Your task to perform on an android device: Is it going to rain today? Image 0: 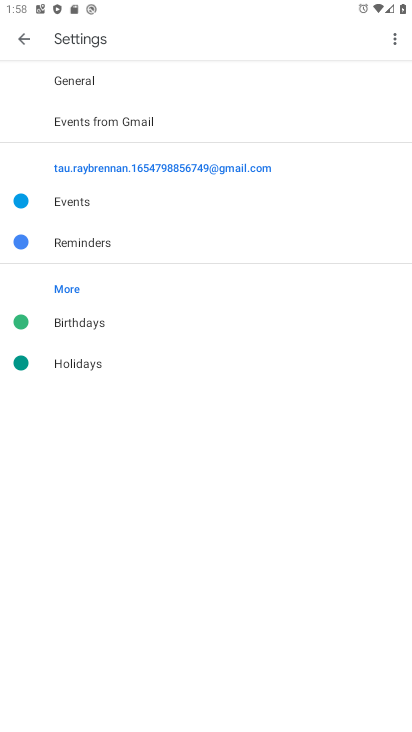
Step 0: press home button
Your task to perform on an android device: Is it going to rain today? Image 1: 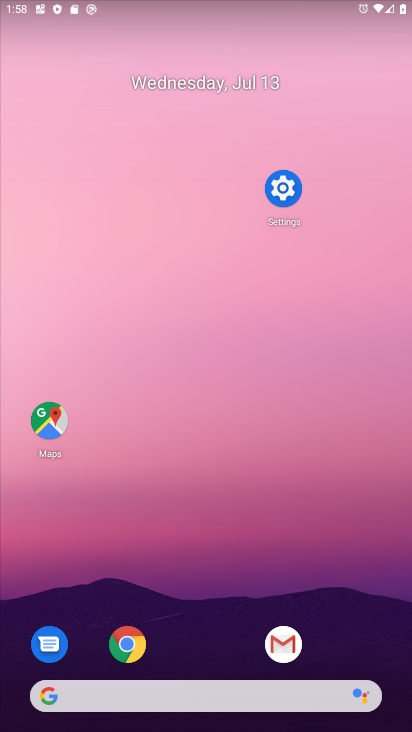
Step 1: click (182, 695)
Your task to perform on an android device: Is it going to rain today? Image 2: 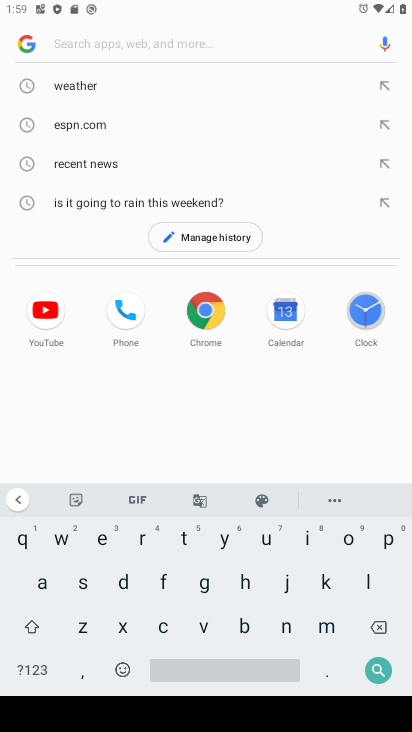
Step 2: click (141, 529)
Your task to perform on an android device: Is it going to rain today? Image 3: 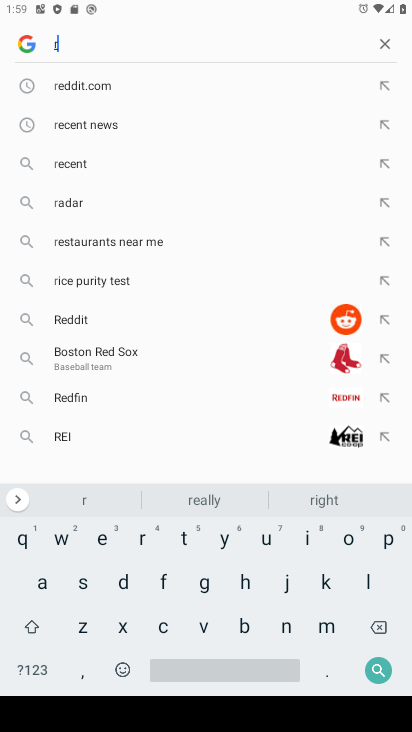
Step 3: click (39, 587)
Your task to perform on an android device: Is it going to rain today? Image 4: 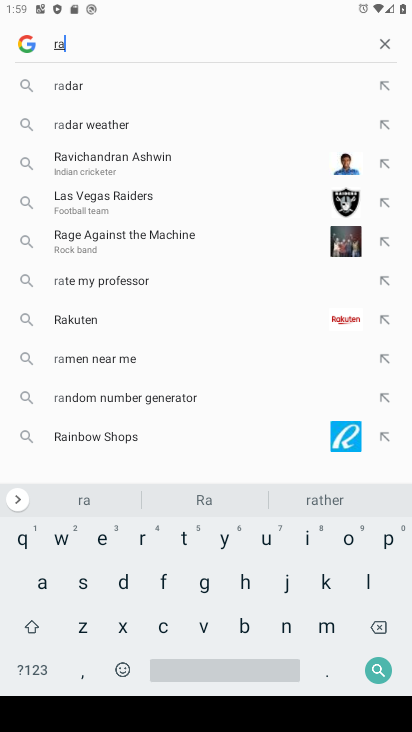
Step 4: click (308, 536)
Your task to perform on an android device: Is it going to rain today? Image 5: 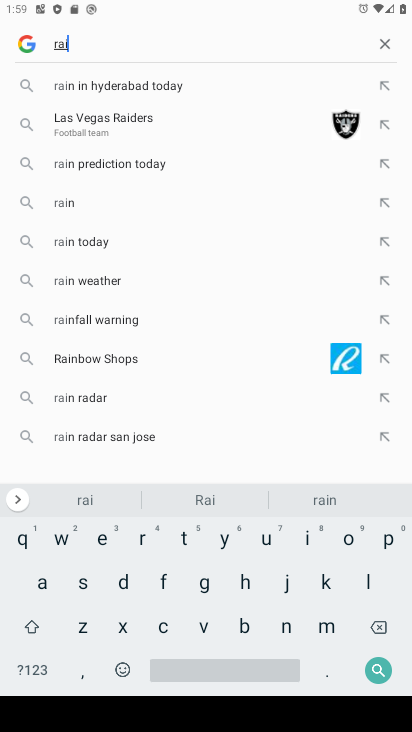
Step 5: click (286, 628)
Your task to perform on an android device: Is it going to rain today? Image 6: 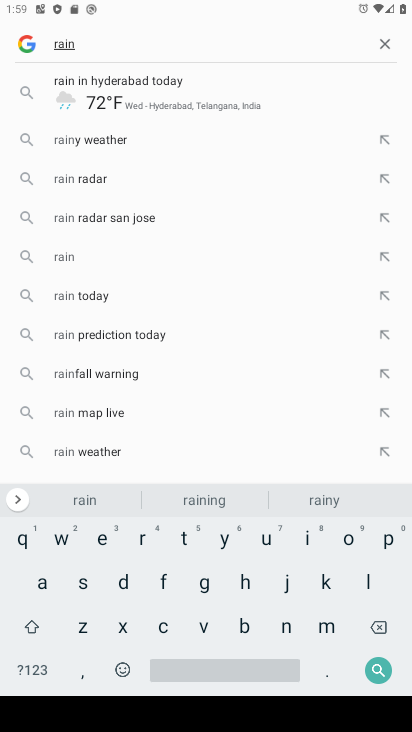
Step 6: click (209, 668)
Your task to perform on an android device: Is it going to rain today? Image 7: 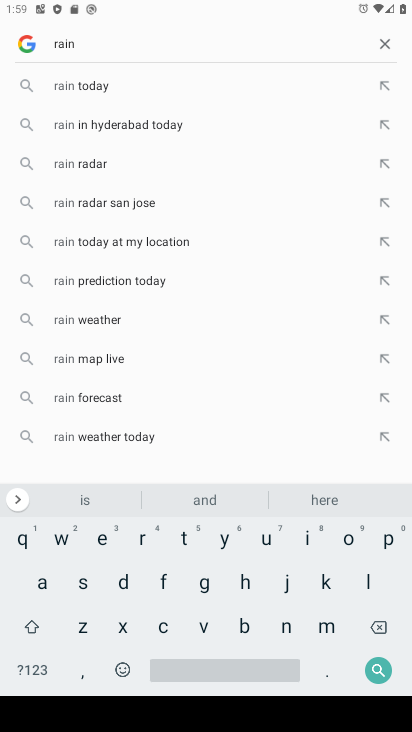
Step 7: click (101, 85)
Your task to perform on an android device: Is it going to rain today? Image 8: 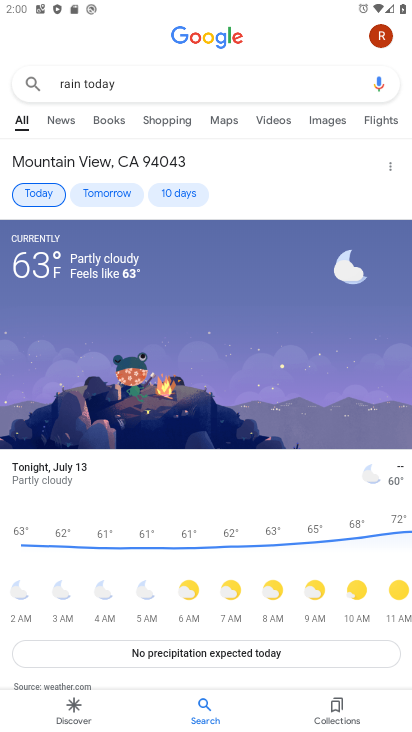
Step 8: task complete